Your task to perform on an android device: Open the calendar and show me this week's events? Image 0: 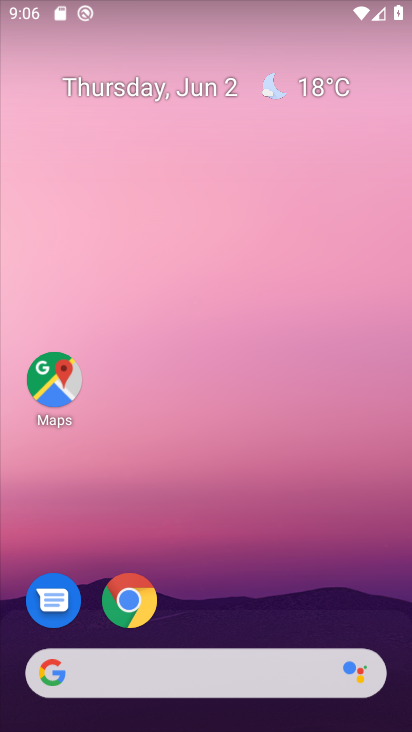
Step 0: drag from (195, 586) to (175, 15)
Your task to perform on an android device: Open the calendar and show me this week's events? Image 1: 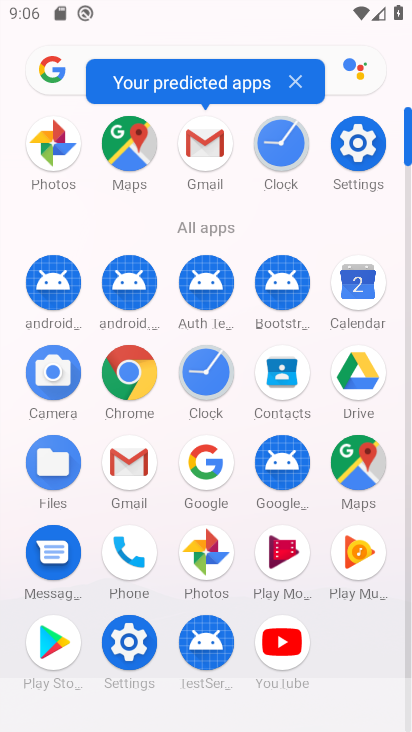
Step 1: click (354, 290)
Your task to perform on an android device: Open the calendar and show me this week's events? Image 2: 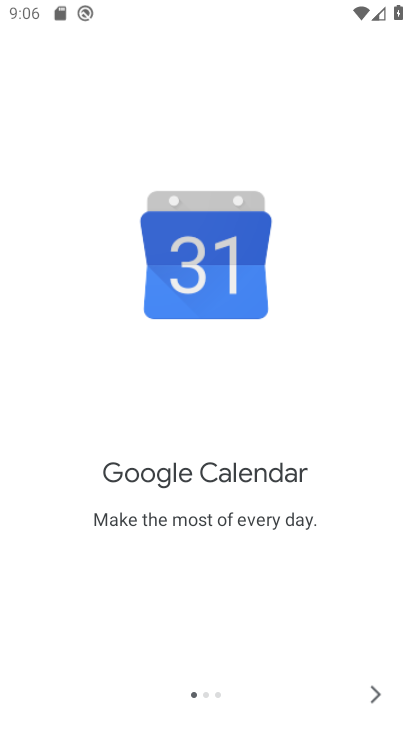
Step 2: click (375, 678)
Your task to perform on an android device: Open the calendar and show me this week's events? Image 3: 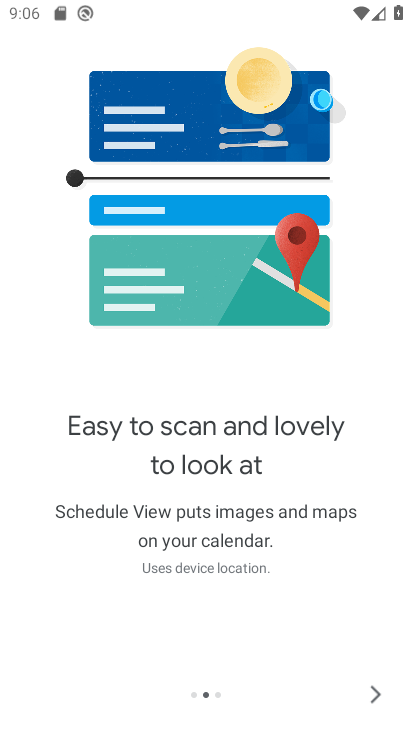
Step 3: click (375, 686)
Your task to perform on an android device: Open the calendar and show me this week's events? Image 4: 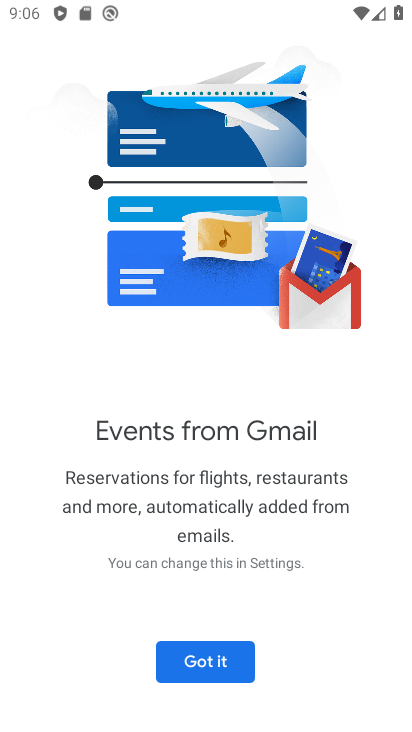
Step 4: click (225, 660)
Your task to perform on an android device: Open the calendar and show me this week's events? Image 5: 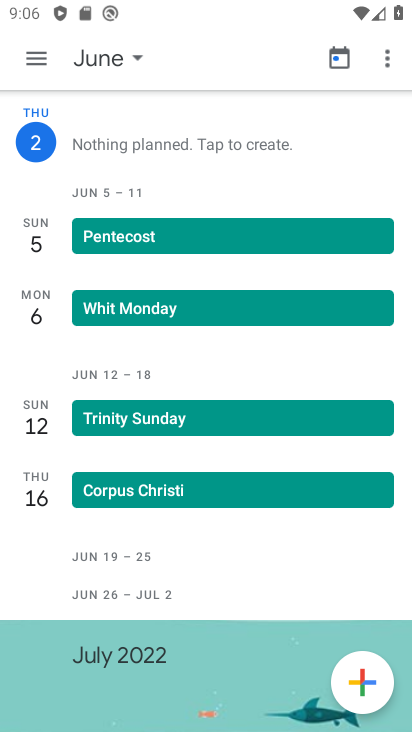
Step 5: click (129, 59)
Your task to perform on an android device: Open the calendar and show me this week's events? Image 6: 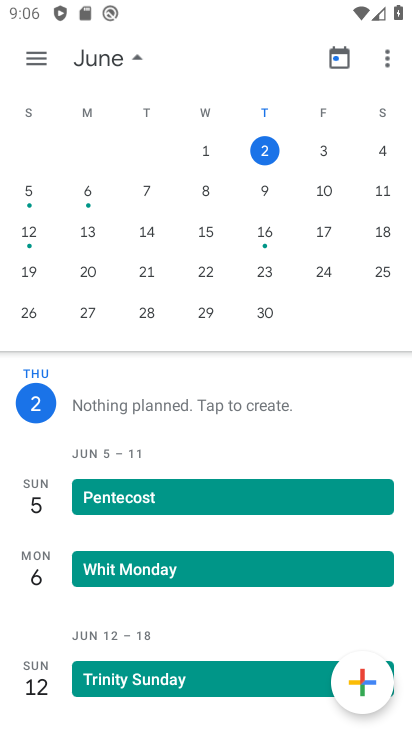
Step 6: click (321, 152)
Your task to perform on an android device: Open the calendar and show me this week's events? Image 7: 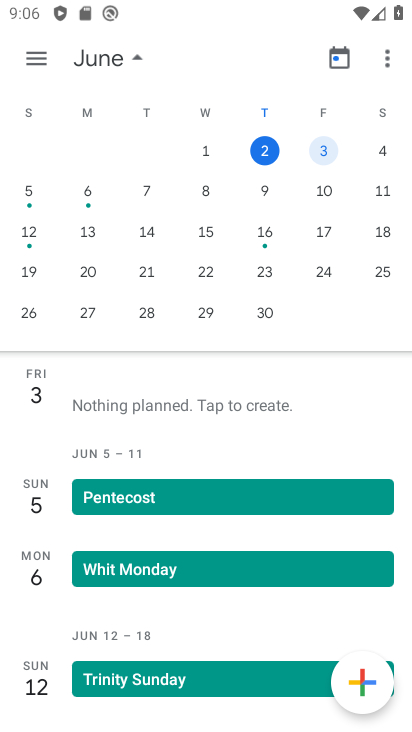
Step 7: task complete